Your task to perform on an android device: Open calendar and show me the fourth week of next month Image 0: 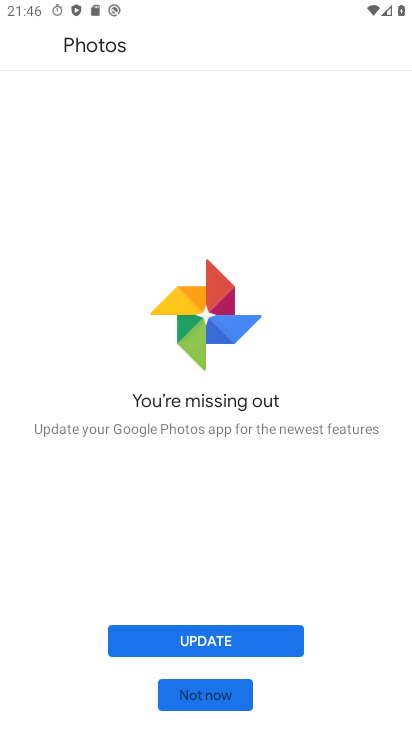
Step 0: press back button
Your task to perform on an android device: Open calendar and show me the fourth week of next month Image 1: 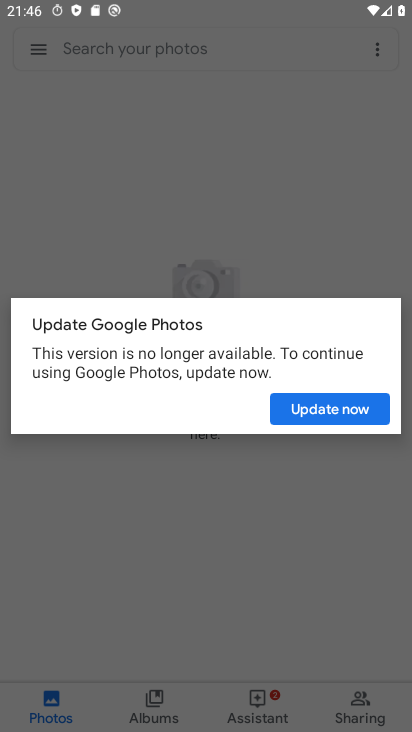
Step 1: press home button
Your task to perform on an android device: Open calendar and show me the fourth week of next month Image 2: 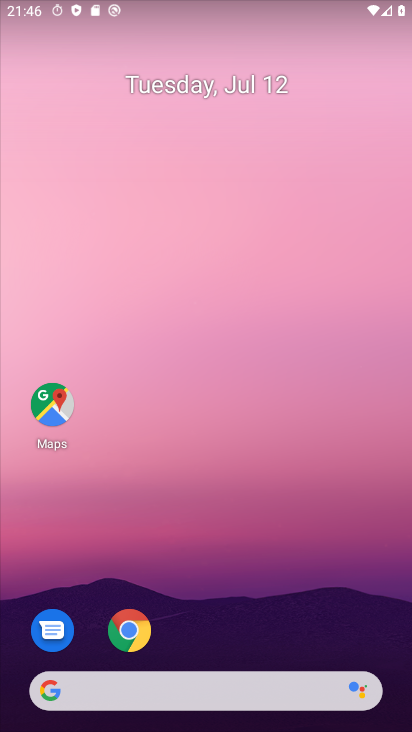
Step 2: drag from (265, 585) to (339, 3)
Your task to perform on an android device: Open calendar and show me the fourth week of next month Image 3: 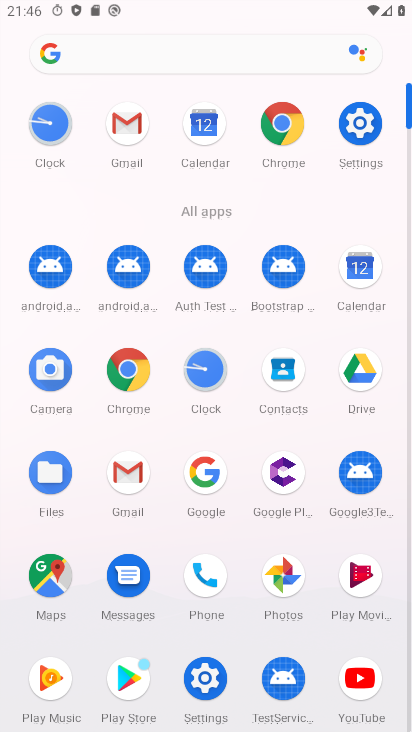
Step 3: click (377, 283)
Your task to perform on an android device: Open calendar and show me the fourth week of next month Image 4: 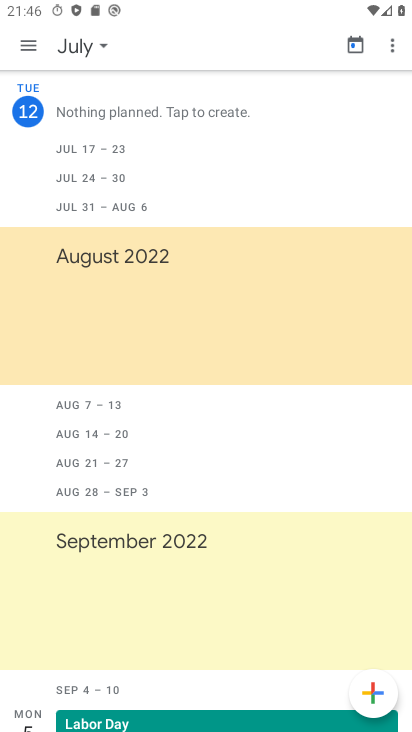
Step 4: click (103, 49)
Your task to perform on an android device: Open calendar and show me the fourth week of next month Image 5: 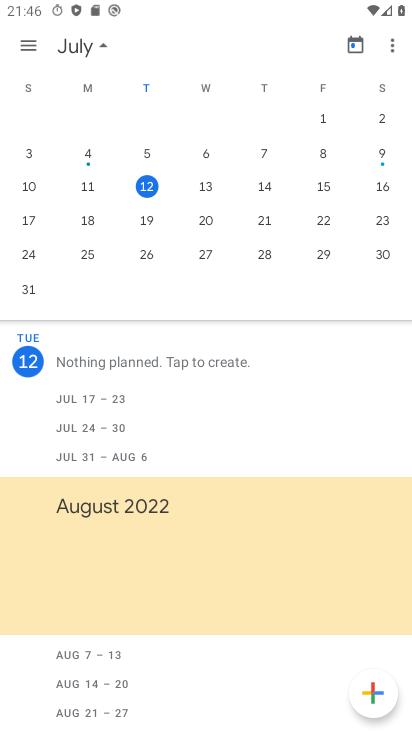
Step 5: drag from (348, 221) to (3, 233)
Your task to perform on an android device: Open calendar and show me the fourth week of next month Image 6: 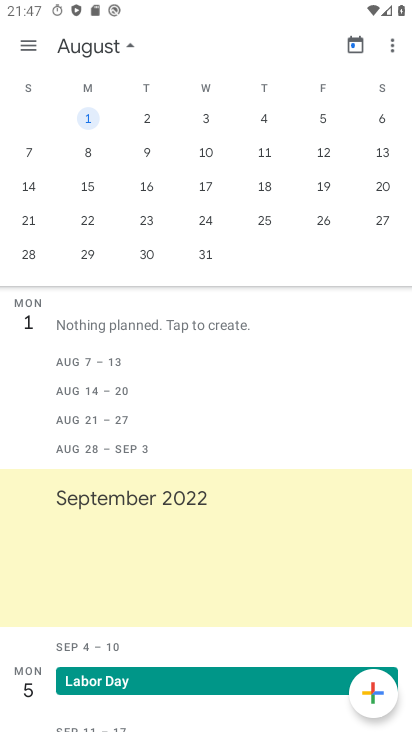
Step 6: click (90, 217)
Your task to perform on an android device: Open calendar and show me the fourth week of next month Image 7: 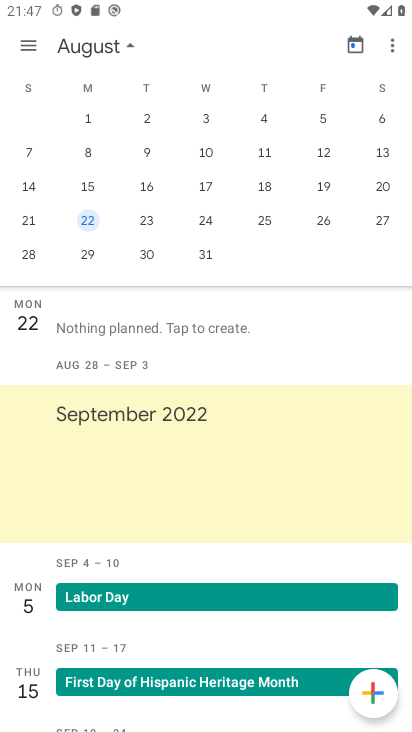
Step 7: task complete